Your task to perform on an android device: turn off location Image 0: 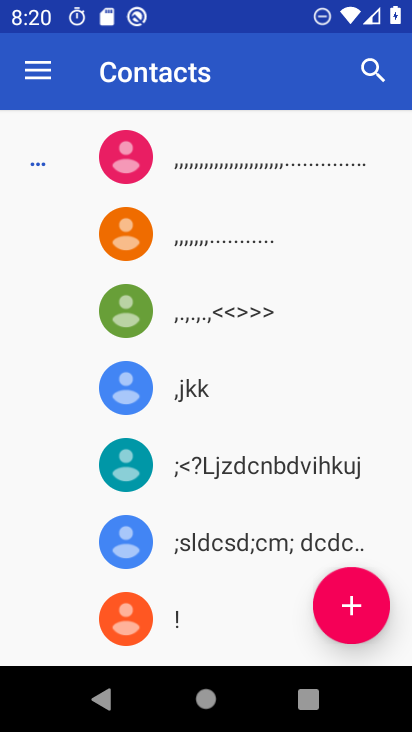
Step 0: press home button
Your task to perform on an android device: turn off location Image 1: 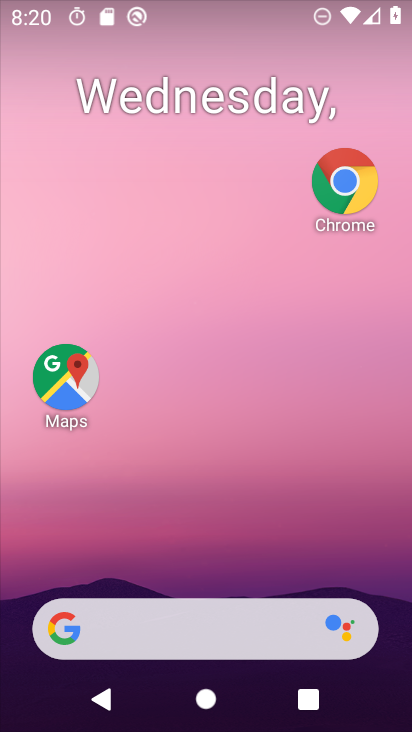
Step 1: drag from (346, 647) to (232, 133)
Your task to perform on an android device: turn off location Image 2: 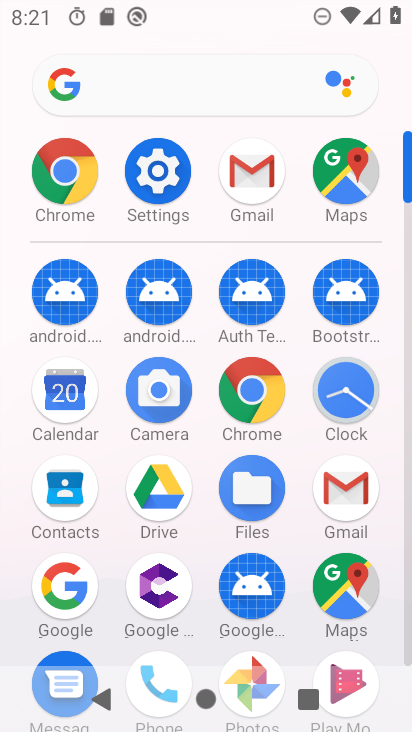
Step 2: click (170, 178)
Your task to perform on an android device: turn off location Image 3: 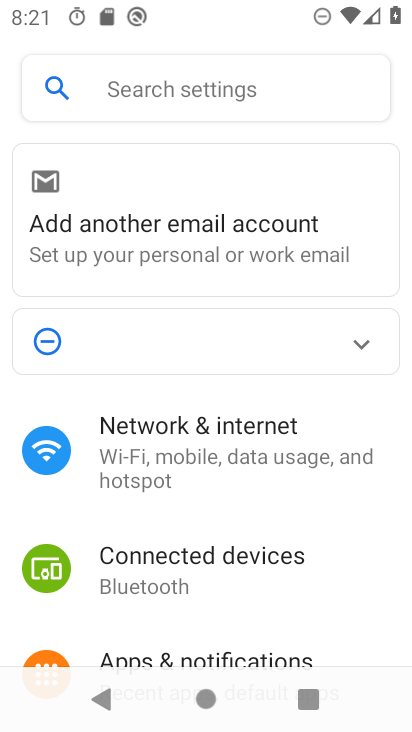
Step 3: click (228, 82)
Your task to perform on an android device: turn off location Image 4: 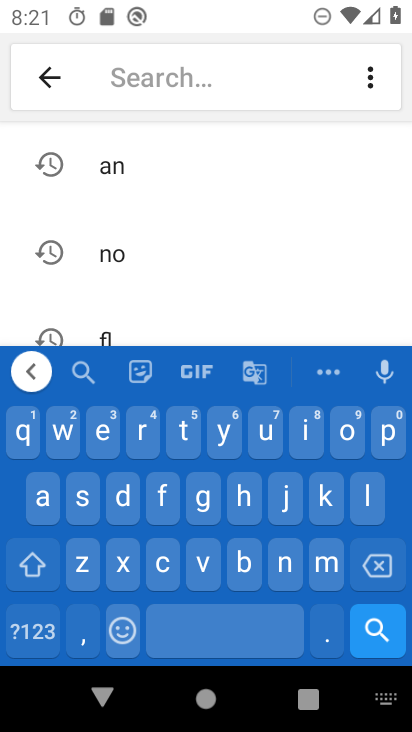
Step 4: click (366, 500)
Your task to perform on an android device: turn off location Image 5: 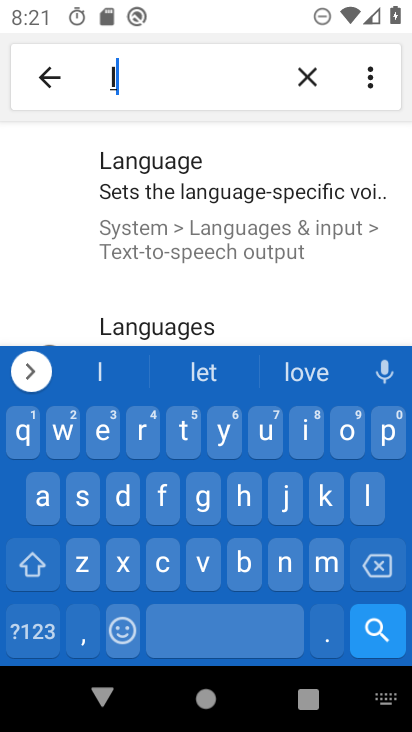
Step 5: click (347, 440)
Your task to perform on an android device: turn off location Image 6: 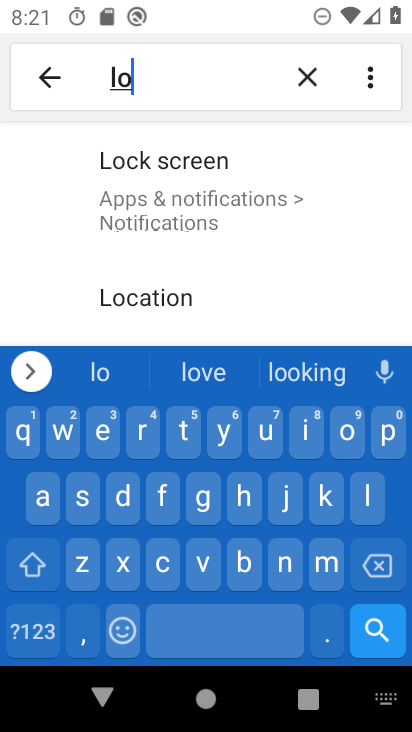
Step 6: click (157, 551)
Your task to perform on an android device: turn off location Image 7: 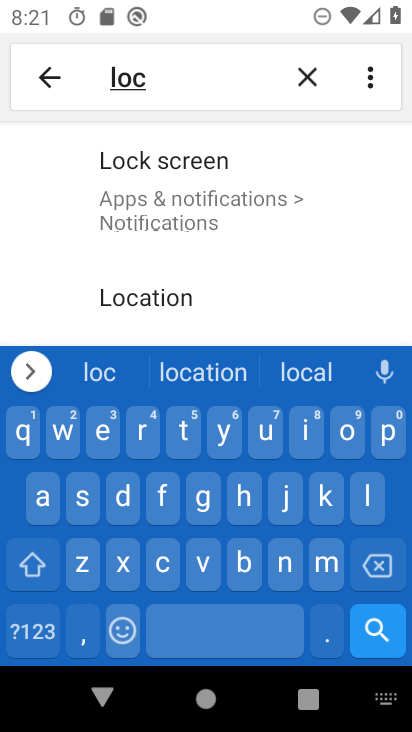
Step 7: click (35, 500)
Your task to perform on an android device: turn off location Image 8: 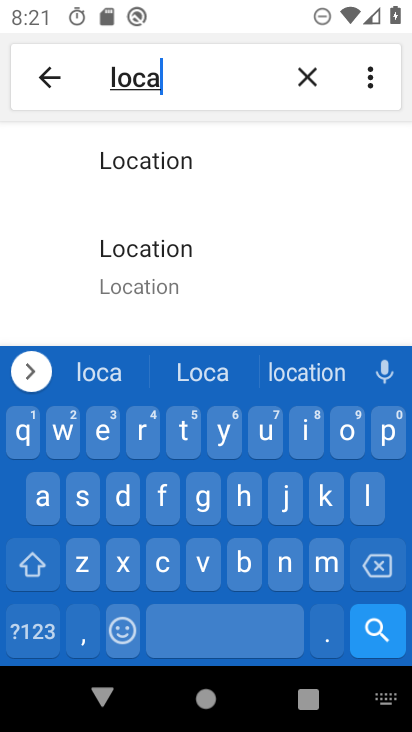
Step 8: click (145, 288)
Your task to perform on an android device: turn off location Image 9: 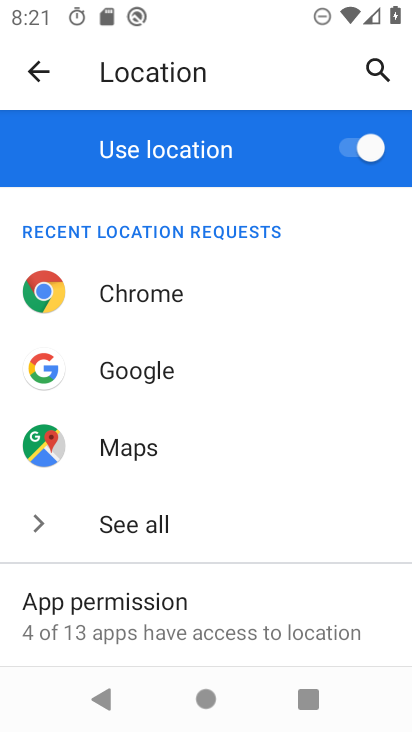
Step 9: click (352, 150)
Your task to perform on an android device: turn off location Image 10: 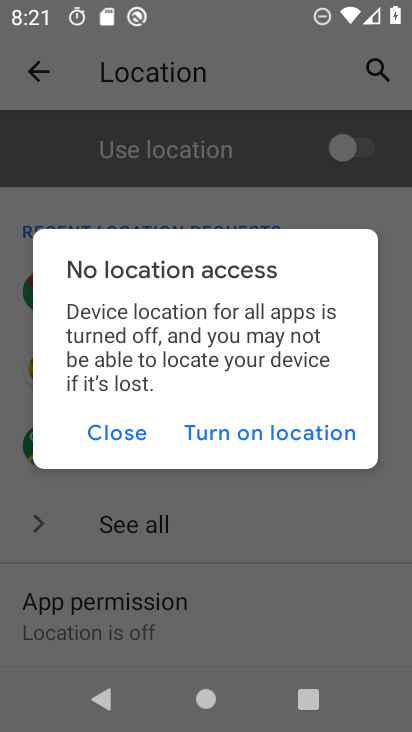
Step 10: task complete